Your task to perform on an android device: Open calendar and show me the third week of next month Image 0: 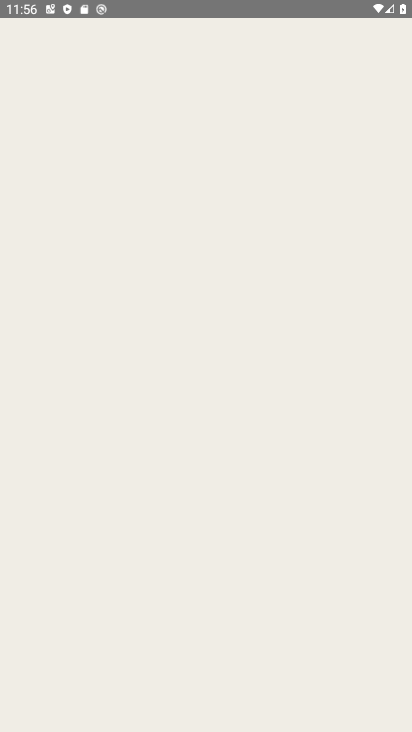
Step 0: press home button
Your task to perform on an android device: Open calendar and show me the third week of next month Image 1: 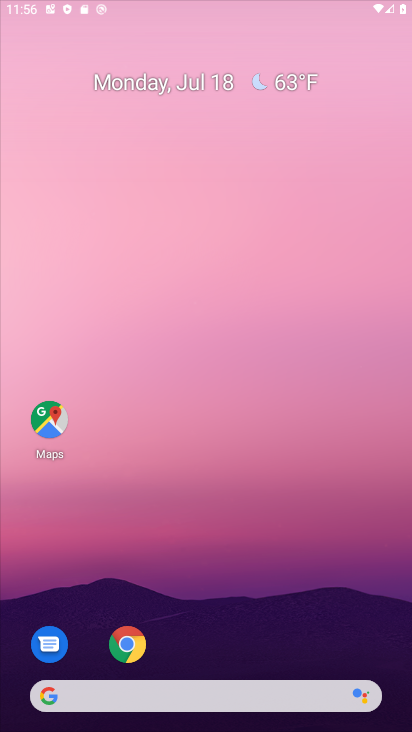
Step 1: drag from (226, 710) to (217, 227)
Your task to perform on an android device: Open calendar and show me the third week of next month Image 2: 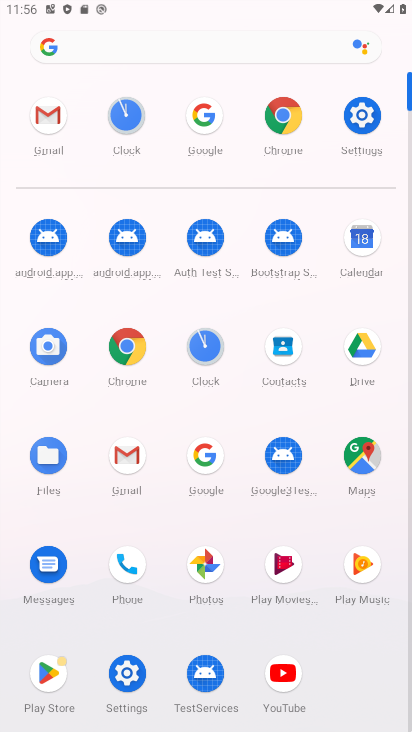
Step 2: click (364, 239)
Your task to perform on an android device: Open calendar and show me the third week of next month Image 3: 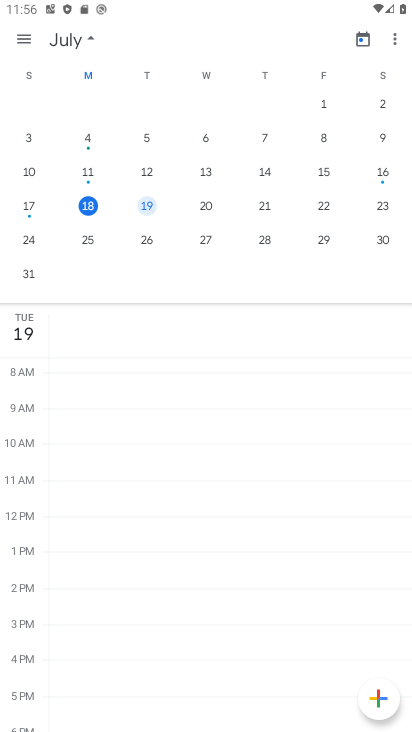
Step 3: drag from (343, 215) to (51, 201)
Your task to perform on an android device: Open calendar and show me the third week of next month Image 4: 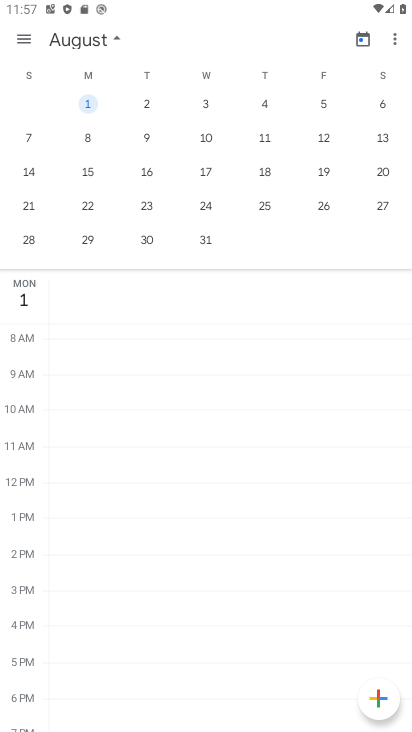
Step 4: click (85, 173)
Your task to perform on an android device: Open calendar and show me the third week of next month Image 5: 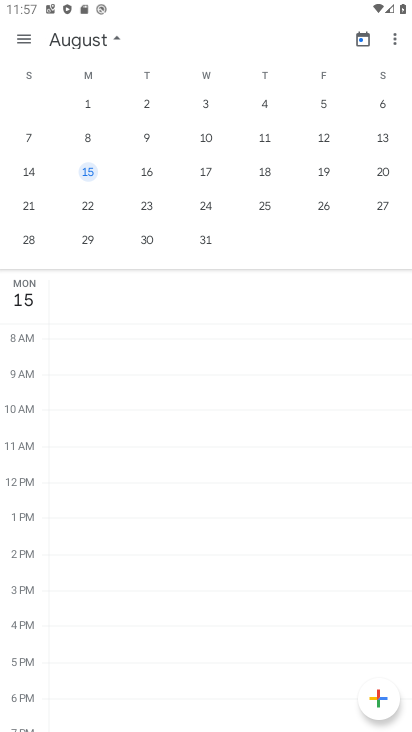
Step 5: click (23, 41)
Your task to perform on an android device: Open calendar and show me the third week of next month Image 6: 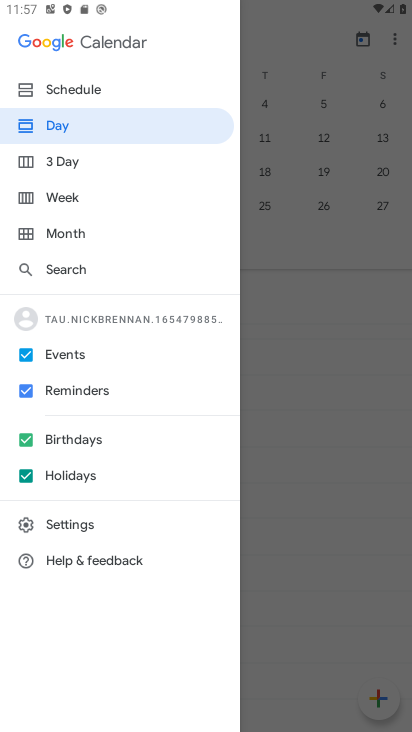
Step 6: click (58, 197)
Your task to perform on an android device: Open calendar and show me the third week of next month Image 7: 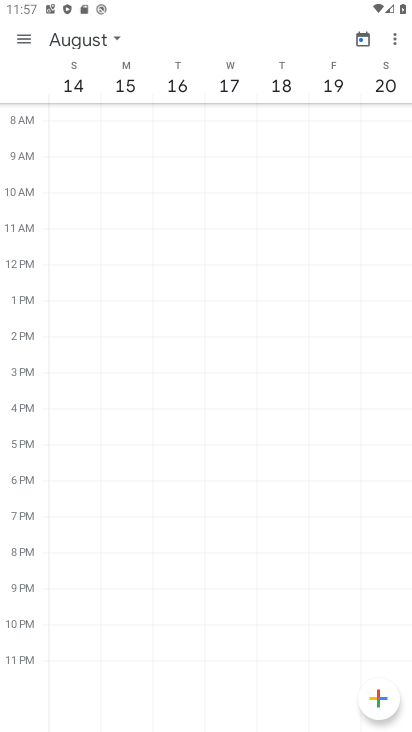
Step 7: task complete